Your task to perform on an android device: Open Yahoo.com Image 0: 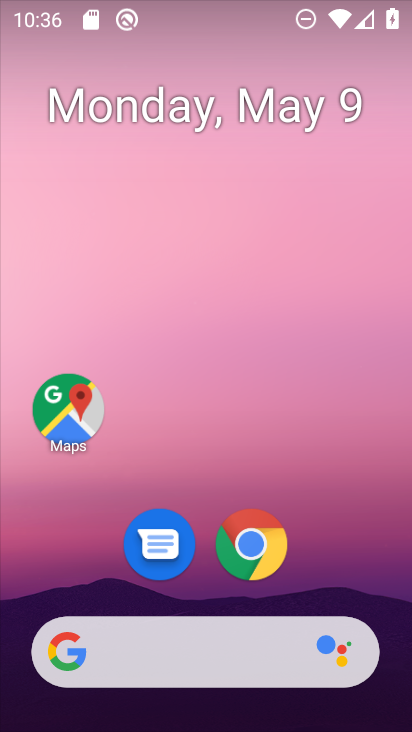
Step 0: click (250, 542)
Your task to perform on an android device: Open Yahoo.com Image 1: 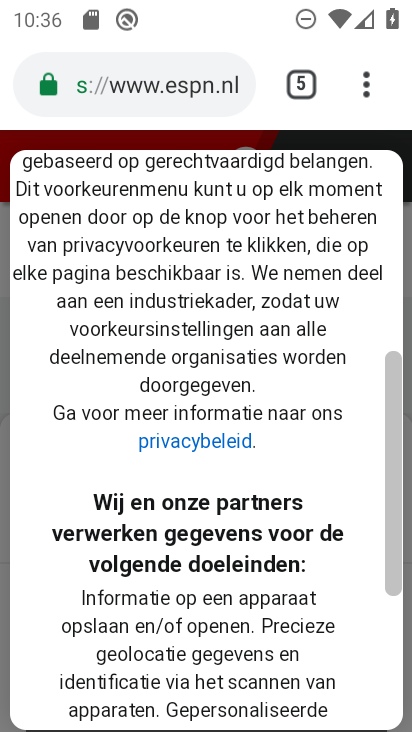
Step 1: click (365, 84)
Your task to perform on an android device: Open Yahoo.com Image 2: 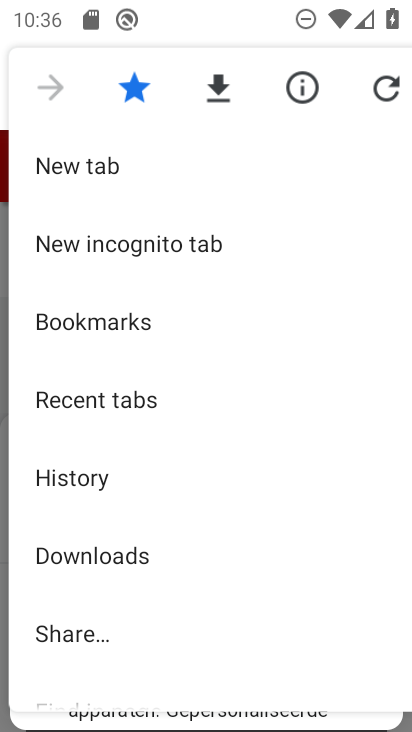
Step 2: click (89, 165)
Your task to perform on an android device: Open Yahoo.com Image 3: 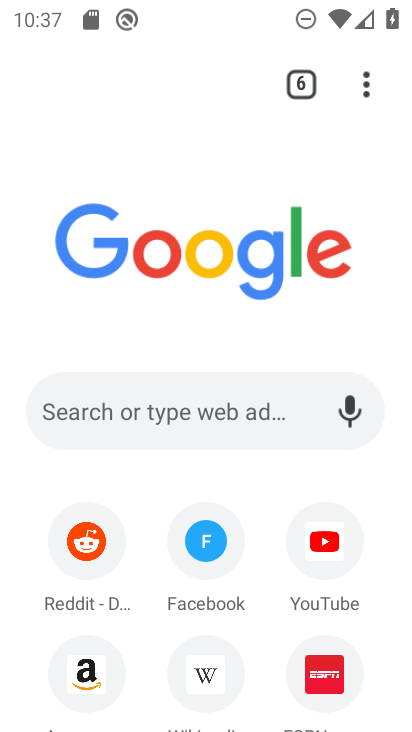
Step 3: drag from (259, 472) to (233, 160)
Your task to perform on an android device: Open Yahoo.com Image 4: 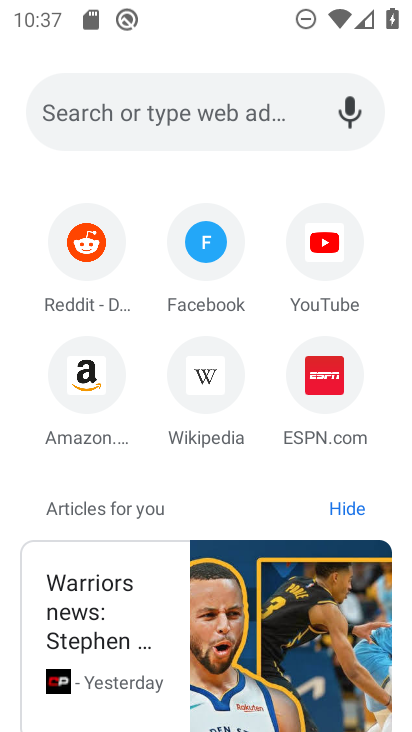
Step 4: click (153, 111)
Your task to perform on an android device: Open Yahoo.com Image 5: 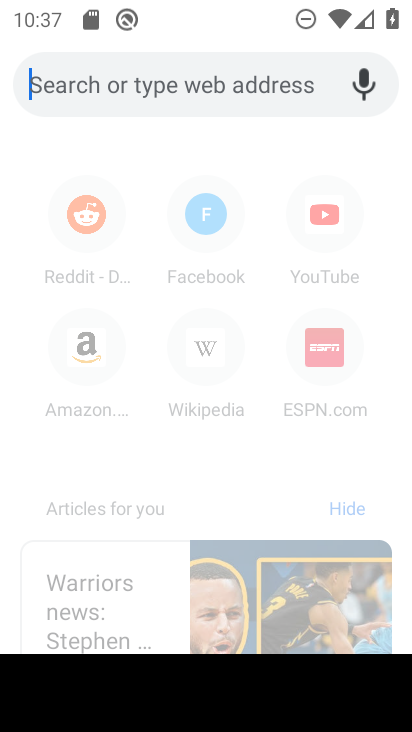
Step 5: type "yahoo.com"
Your task to perform on an android device: Open Yahoo.com Image 6: 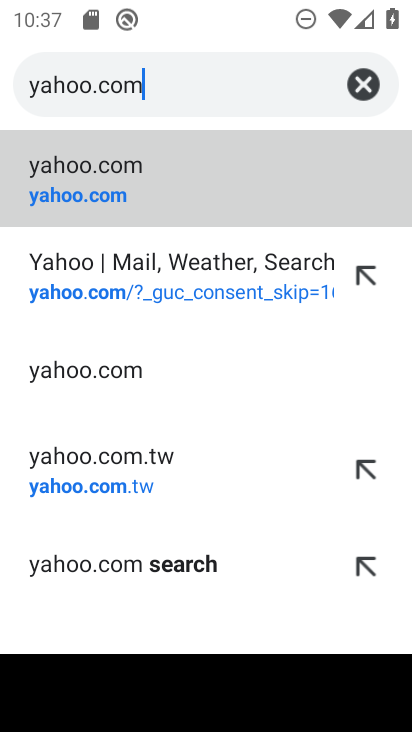
Step 6: click (93, 185)
Your task to perform on an android device: Open Yahoo.com Image 7: 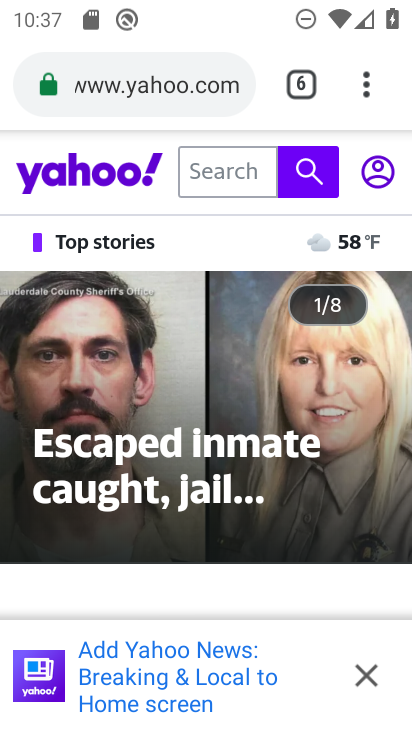
Step 7: task complete